Your task to perform on an android device: Open Chrome and go to settings Image 0: 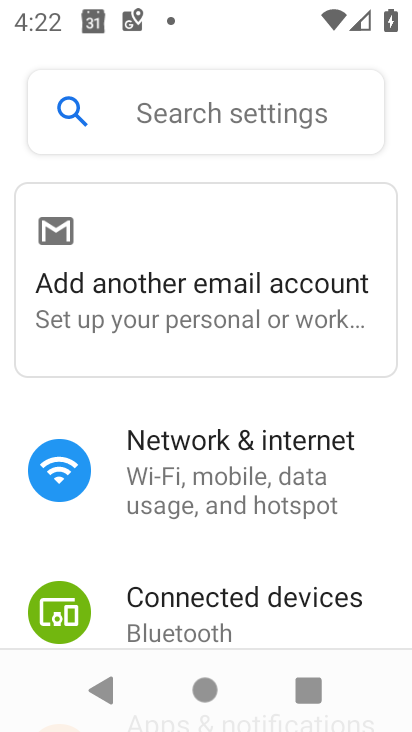
Step 0: press home button
Your task to perform on an android device: Open Chrome and go to settings Image 1: 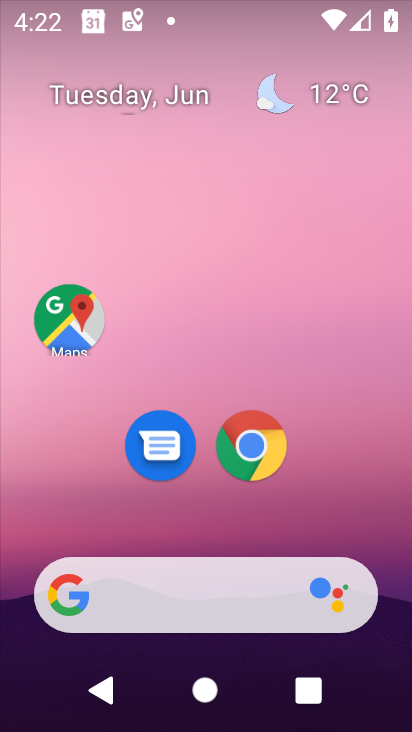
Step 1: drag from (310, 538) to (337, 0)
Your task to perform on an android device: Open Chrome and go to settings Image 2: 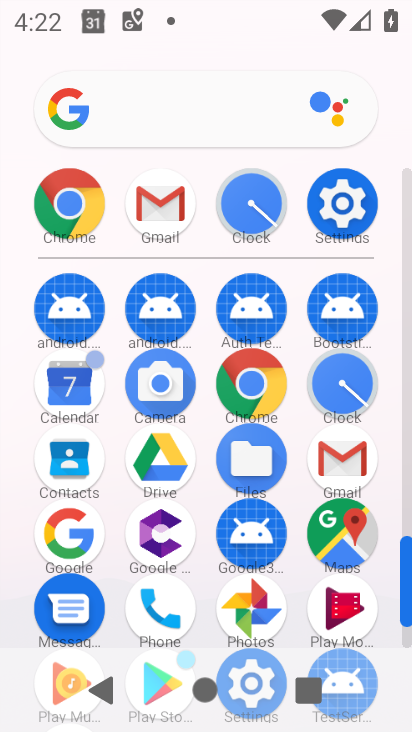
Step 2: click (82, 196)
Your task to perform on an android device: Open Chrome and go to settings Image 3: 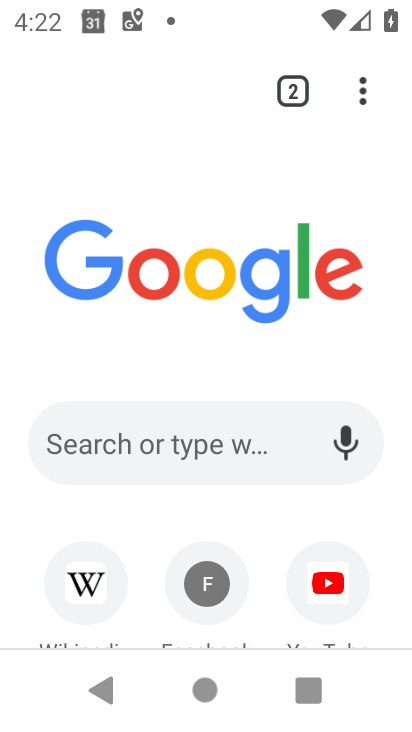
Step 3: task complete